Your task to perform on an android device: toggle pop-ups in chrome Image 0: 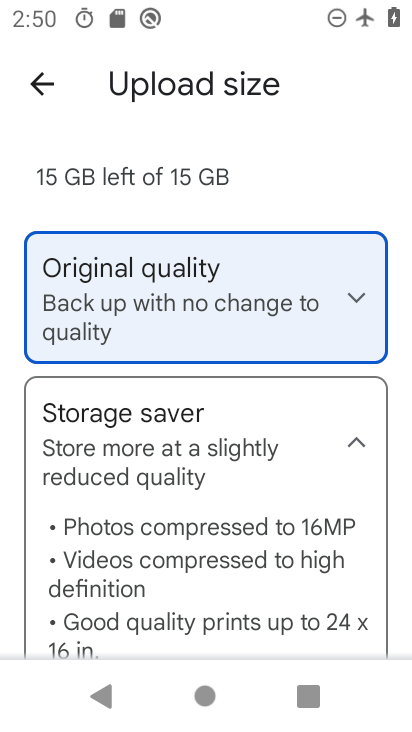
Step 0: press home button
Your task to perform on an android device: toggle pop-ups in chrome Image 1: 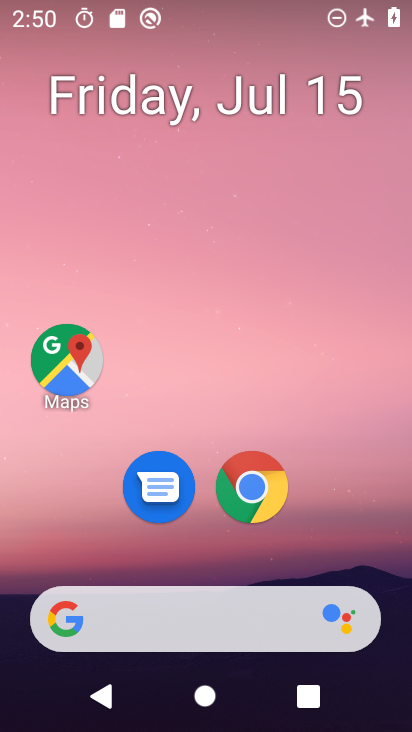
Step 1: click (256, 509)
Your task to perform on an android device: toggle pop-ups in chrome Image 2: 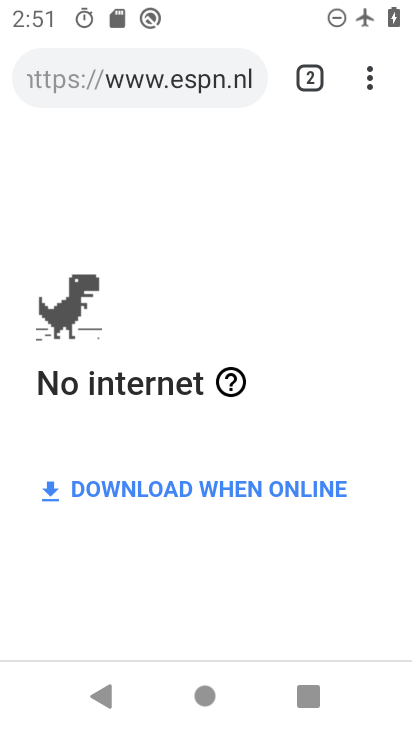
Step 2: click (368, 88)
Your task to perform on an android device: toggle pop-ups in chrome Image 3: 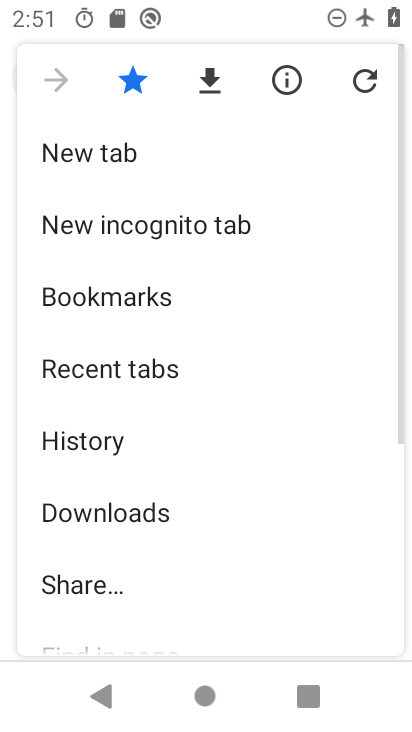
Step 3: drag from (253, 510) to (200, 7)
Your task to perform on an android device: toggle pop-ups in chrome Image 4: 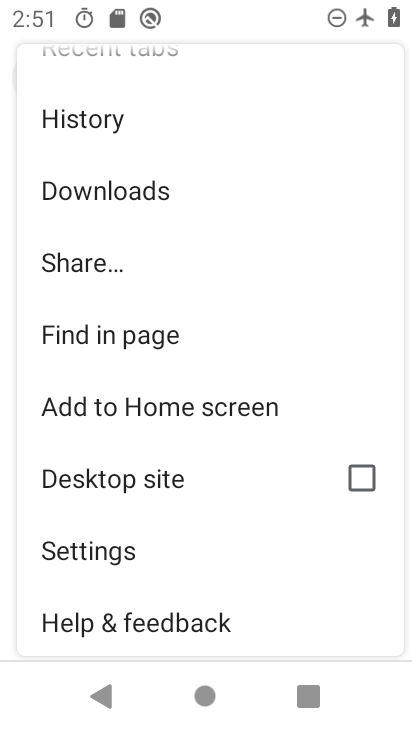
Step 4: click (112, 559)
Your task to perform on an android device: toggle pop-ups in chrome Image 5: 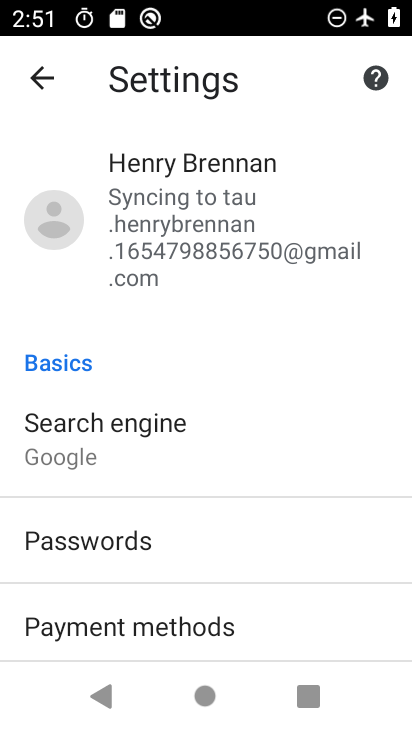
Step 5: drag from (159, 581) to (190, 141)
Your task to perform on an android device: toggle pop-ups in chrome Image 6: 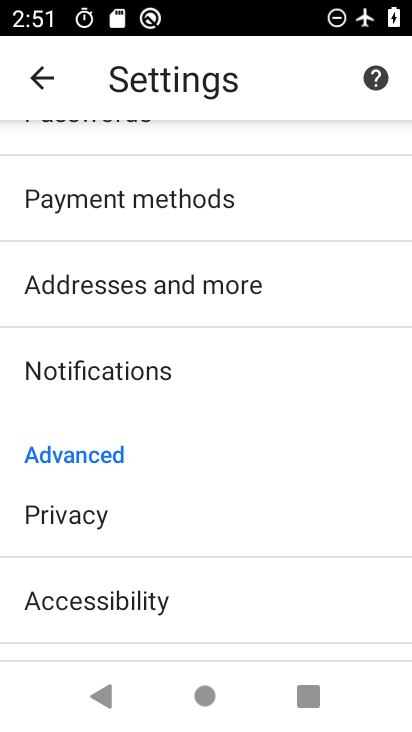
Step 6: drag from (151, 603) to (155, 305)
Your task to perform on an android device: toggle pop-ups in chrome Image 7: 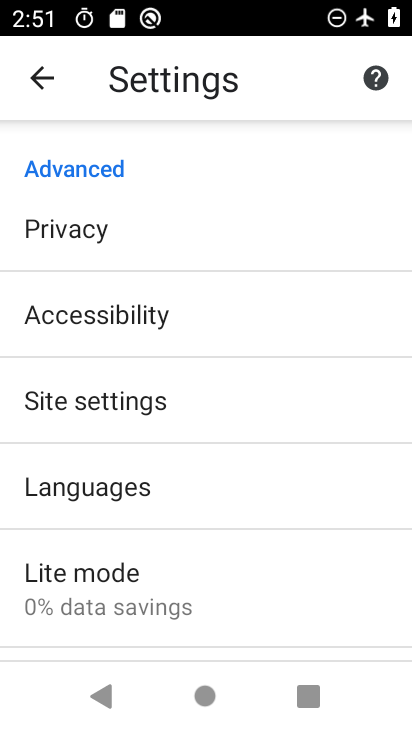
Step 7: click (149, 398)
Your task to perform on an android device: toggle pop-ups in chrome Image 8: 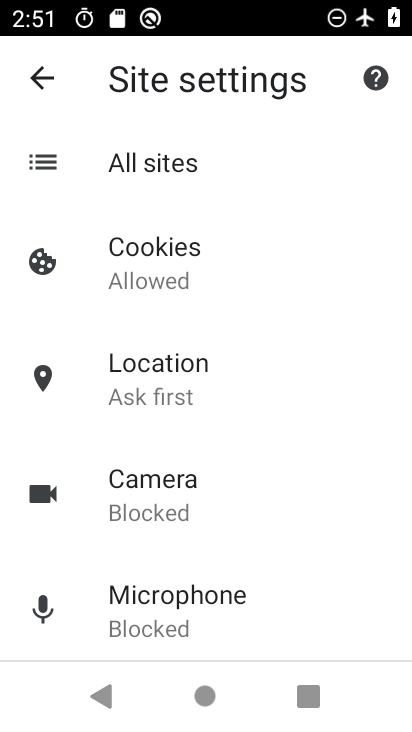
Step 8: drag from (185, 537) to (180, 153)
Your task to perform on an android device: toggle pop-ups in chrome Image 9: 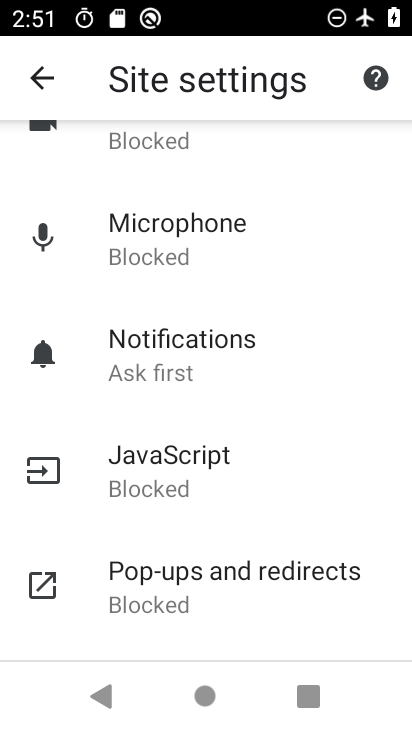
Step 9: click (191, 581)
Your task to perform on an android device: toggle pop-ups in chrome Image 10: 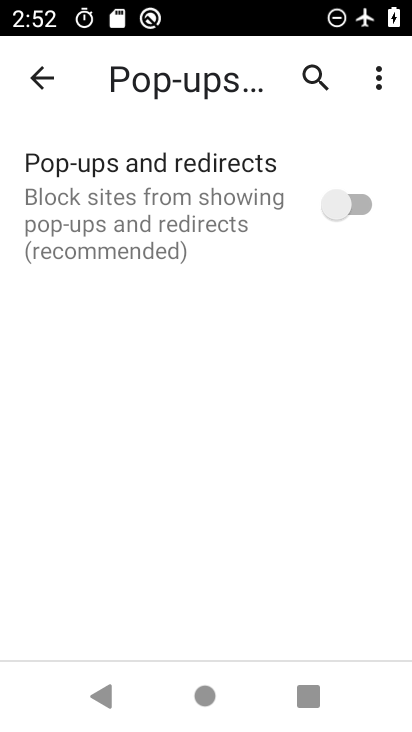
Step 10: click (353, 210)
Your task to perform on an android device: toggle pop-ups in chrome Image 11: 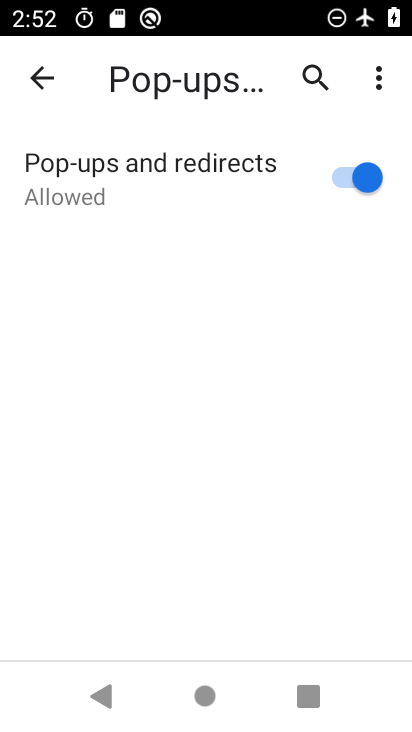
Step 11: task complete